Your task to perform on an android device: open the mobile data screen to see how much data has been used Image 0: 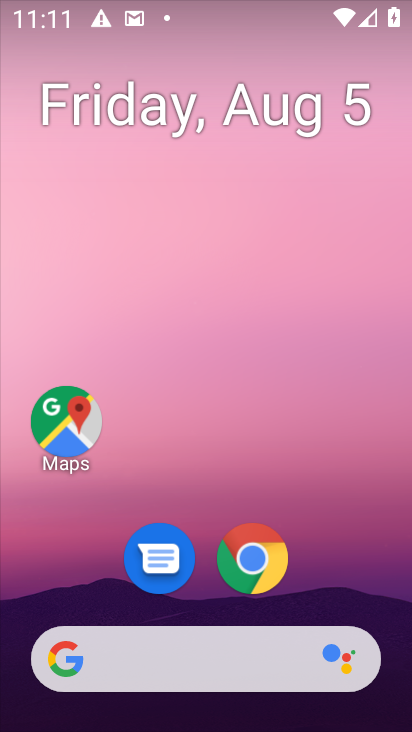
Step 0: press home button
Your task to perform on an android device: open the mobile data screen to see how much data has been used Image 1: 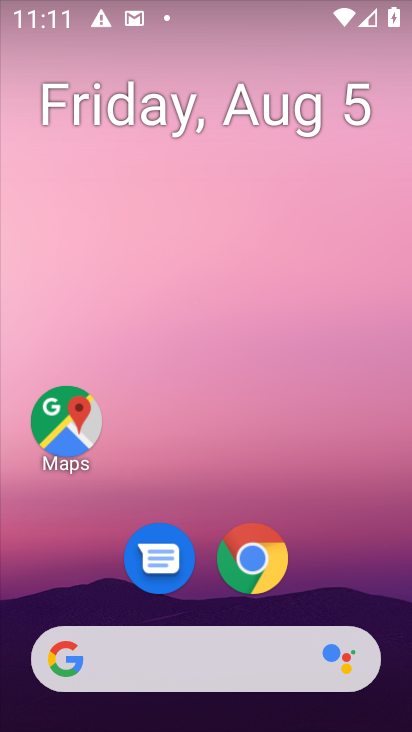
Step 1: drag from (353, 573) to (371, 197)
Your task to perform on an android device: open the mobile data screen to see how much data has been used Image 2: 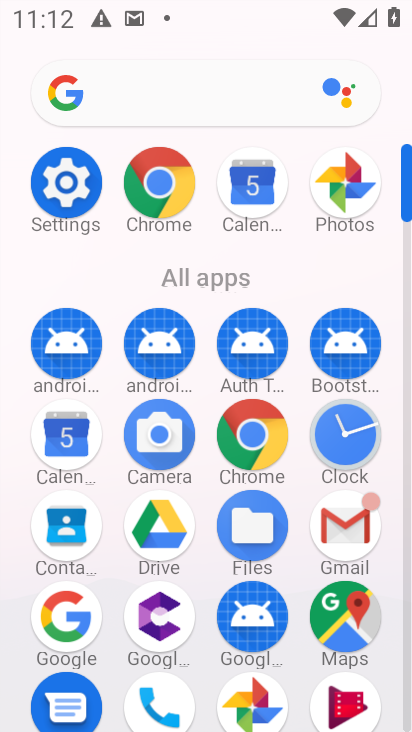
Step 2: click (60, 185)
Your task to perform on an android device: open the mobile data screen to see how much data has been used Image 3: 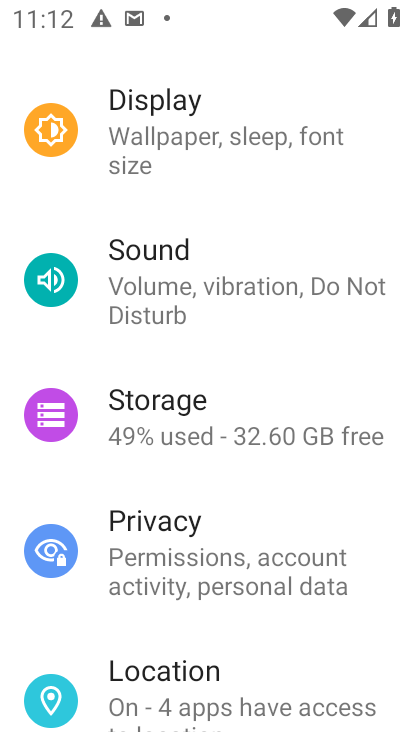
Step 3: drag from (397, 163) to (388, 248)
Your task to perform on an android device: open the mobile data screen to see how much data has been used Image 4: 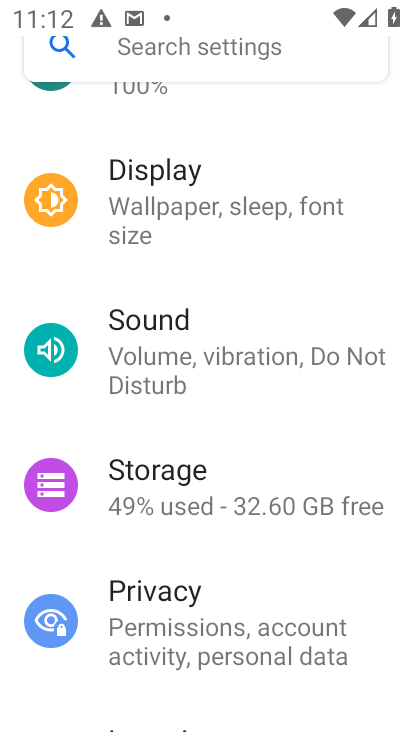
Step 4: drag from (377, 150) to (372, 247)
Your task to perform on an android device: open the mobile data screen to see how much data has been used Image 5: 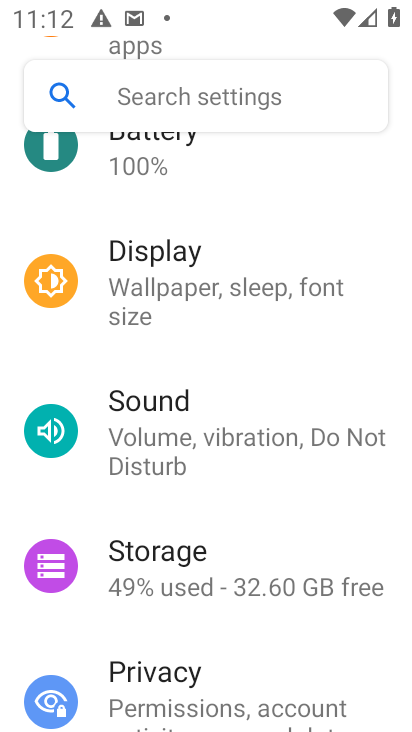
Step 5: drag from (391, 163) to (382, 267)
Your task to perform on an android device: open the mobile data screen to see how much data has been used Image 6: 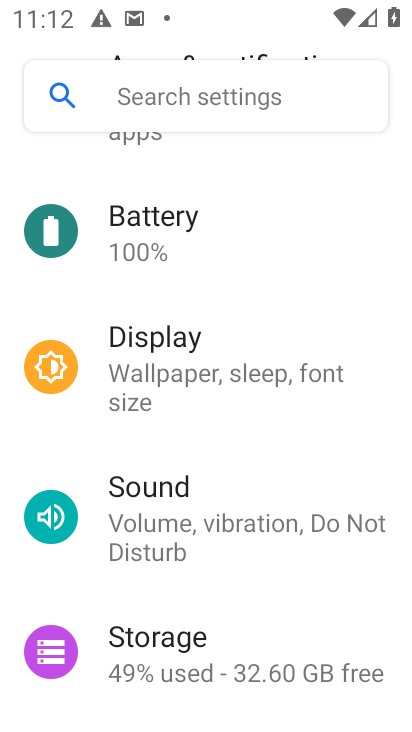
Step 6: drag from (371, 168) to (365, 265)
Your task to perform on an android device: open the mobile data screen to see how much data has been used Image 7: 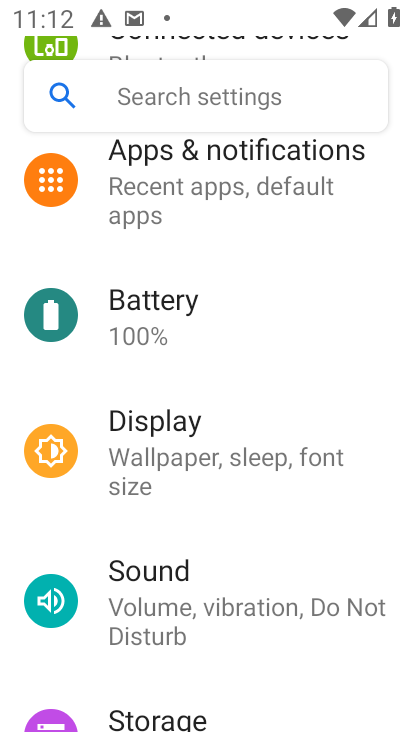
Step 7: drag from (377, 168) to (362, 292)
Your task to perform on an android device: open the mobile data screen to see how much data has been used Image 8: 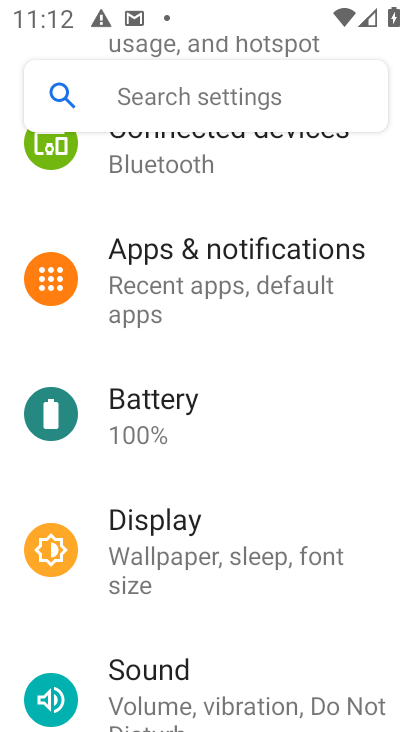
Step 8: drag from (367, 169) to (354, 323)
Your task to perform on an android device: open the mobile data screen to see how much data has been used Image 9: 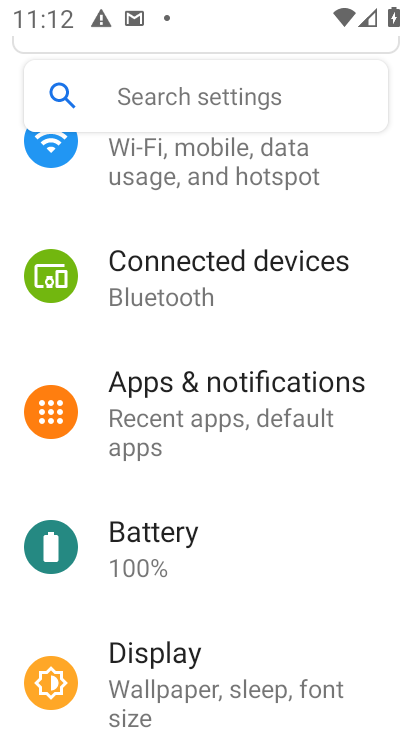
Step 9: drag from (375, 158) to (363, 293)
Your task to perform on an android device: open the mobile data screen to see how much data has been used Image 10: 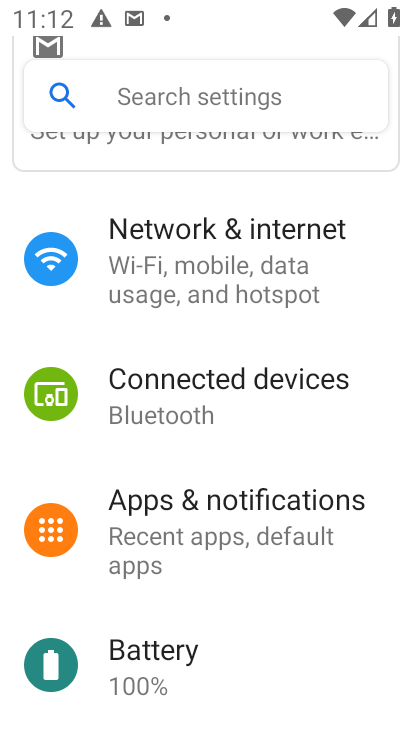
Step 10: click (318, 287)
Your task to perform on an android device: open the mobile data screen to see how much data has been used Image 11: 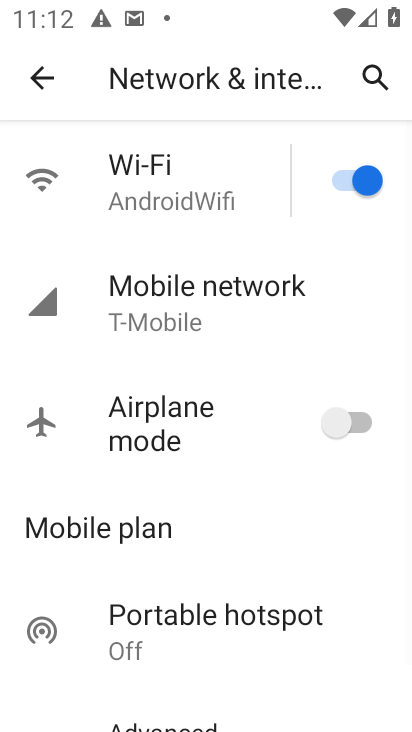
Step 11: click (215, 303)
Your task to perform on an android device: open the mobile data screen to see how much data has been used Image 12: 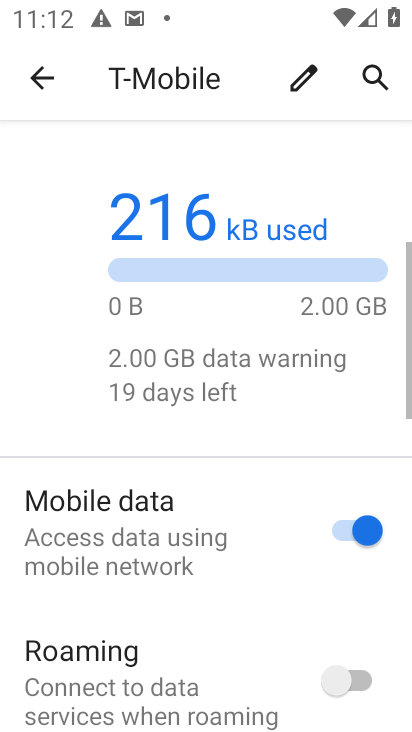
Step 12: drag from (233, 392) to (254, 277)
Your task to perform on an android device: open the mobile data screen to see how much data has been used Image 13: 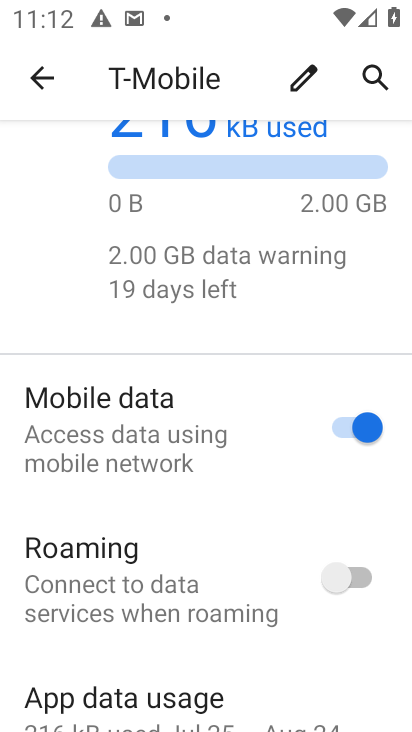
Step 13: drag from (257, 449) to (282, 336)
Your task to perform on an android device: open the mobile data screen to see how much data has been used Image 14: 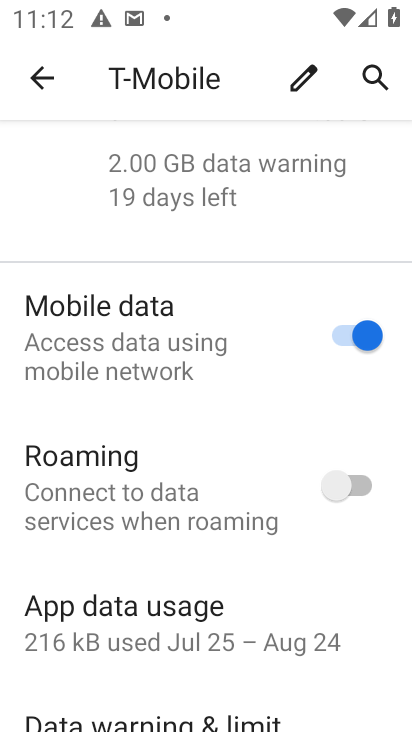
Step 14: drag from (264, 467) to (286, 350)
Your task to perform on an android device: open the mobile data screen to see how much data has been used Image 15: 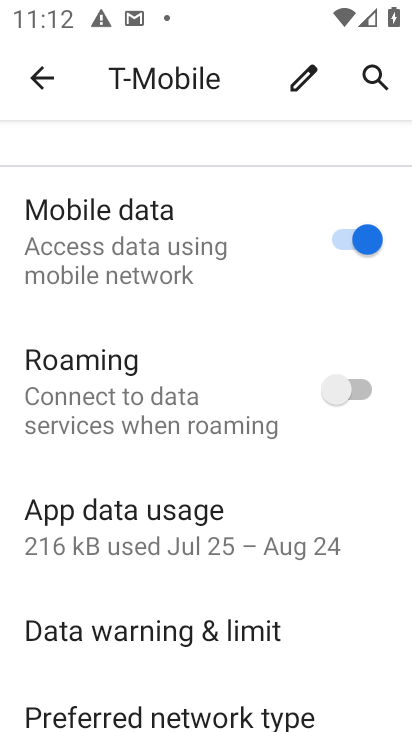
Step 15: drag from (251, 477) to (279, 370)
Your task to perform on an android device: open the mobile data screen to see how much data has been used Image 16: 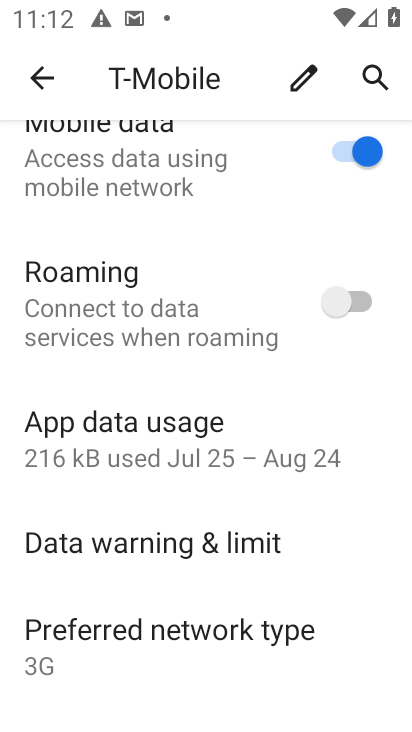
Step 16: click (267, 439)
Your task to perform on an android device: open the mobile data screen to see how much data has been used Image 17: 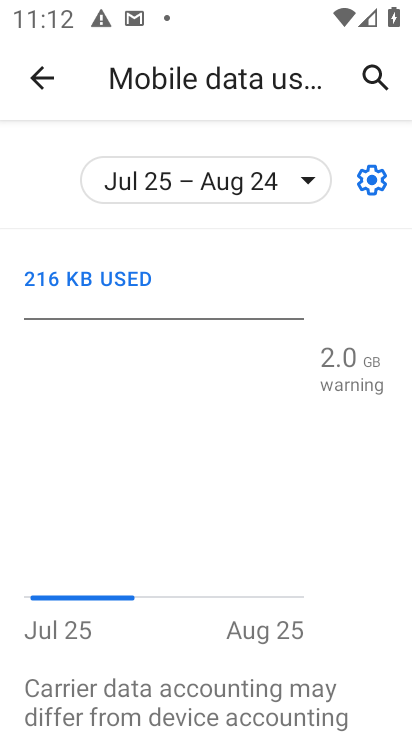
Step 17: task complete